Your task to perform on an android device: Open battery settings Image 0: 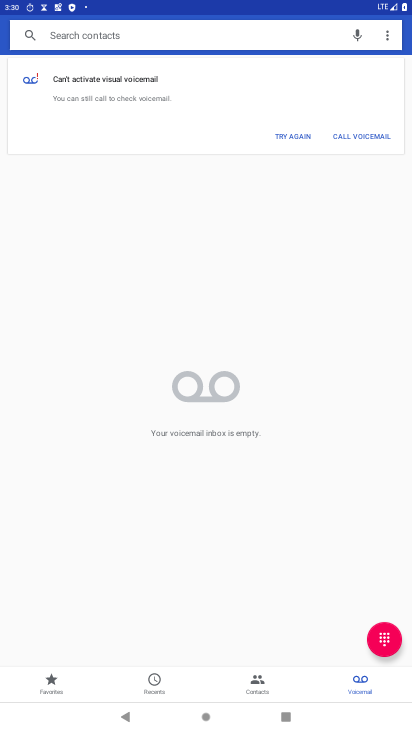
Step 0: press home button
Your task to perform on an android device: Open battery settings Image 1: 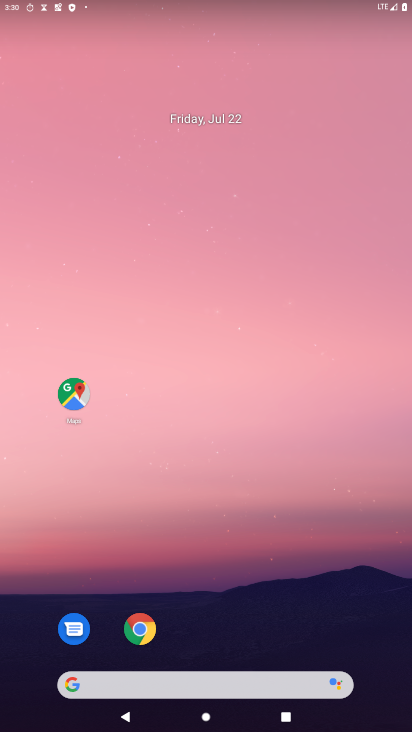
Step 1: drag from (193, 676) to (250, 129)
Your task to perform on an android device: Open battery settings Image 2: 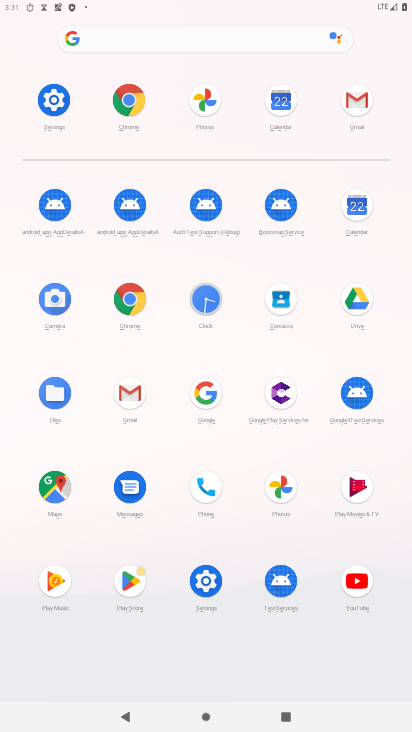
Step 2: click (206, 578)
Your task to perform on an android device: Open battery settings Image 3: 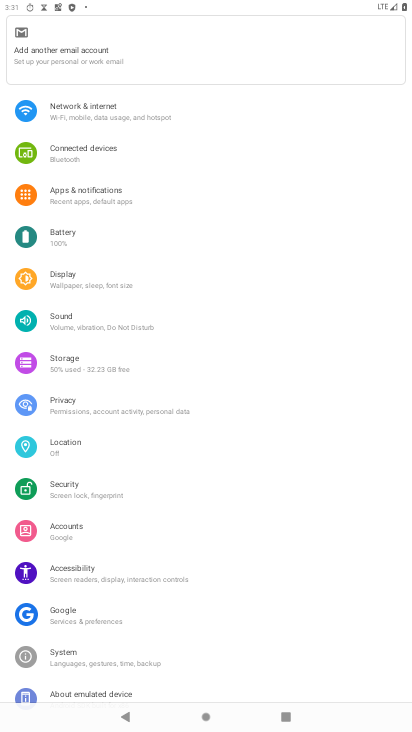
Step 3: click (73, 242)
Your task to perform on an android device: Open battery settings Image 4: 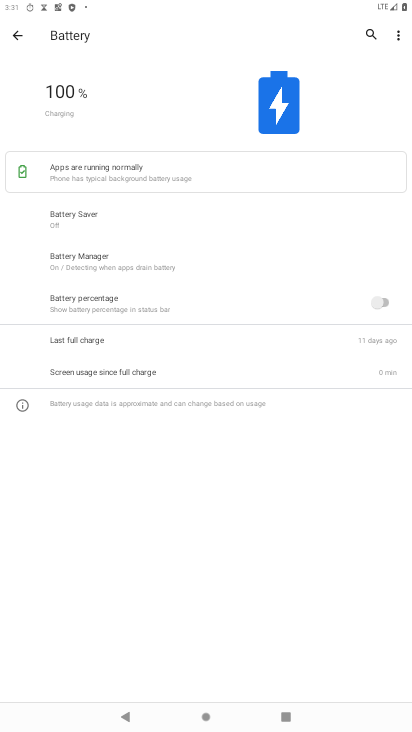
Step 4: task complete